Your task to perform on an android device: See recent photos Image 0: 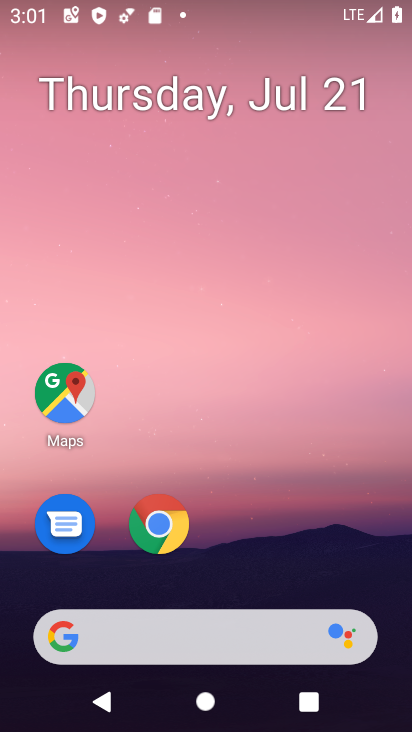
Step 0: drag from (250, 564) to (253, 57)
Your task to perform on an android device: See recent photos Image 1: 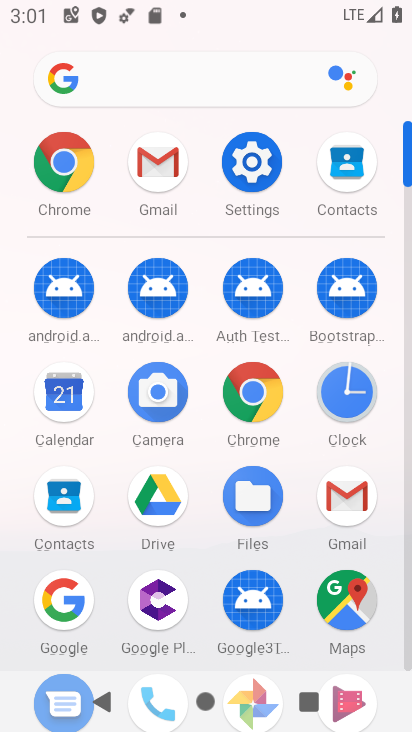
Step 1: drag from (195, 478) to (214, 189)
Your task to perform on an android device: See recent photos Image 2: 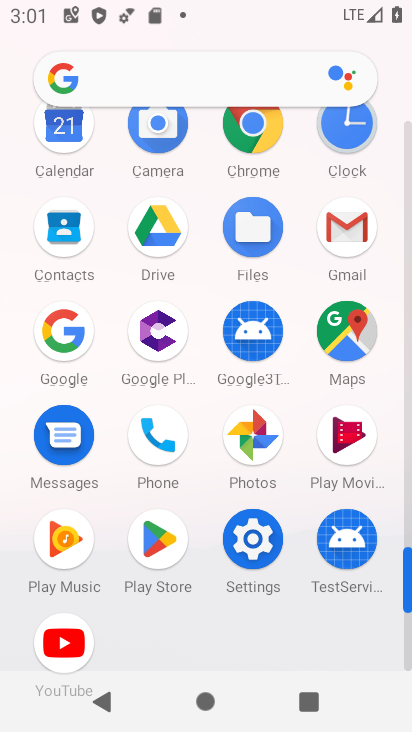
Step 2: click (256, 438)
Your task to perform on an android device: See recent photos Image 3: 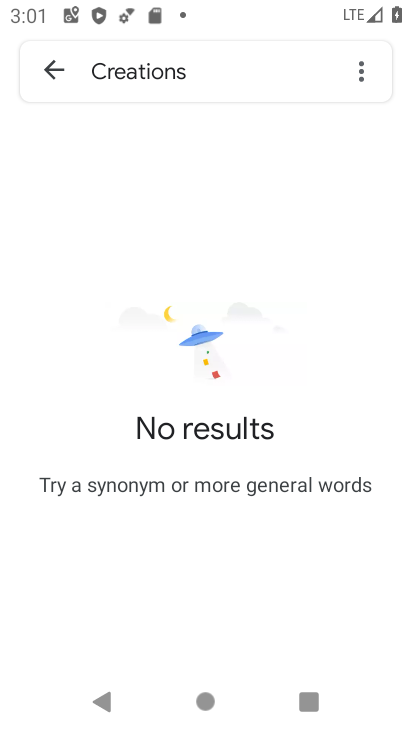
Step 3: click (56, 66)
Your task to perform on an android device: See recent photos Image 4: 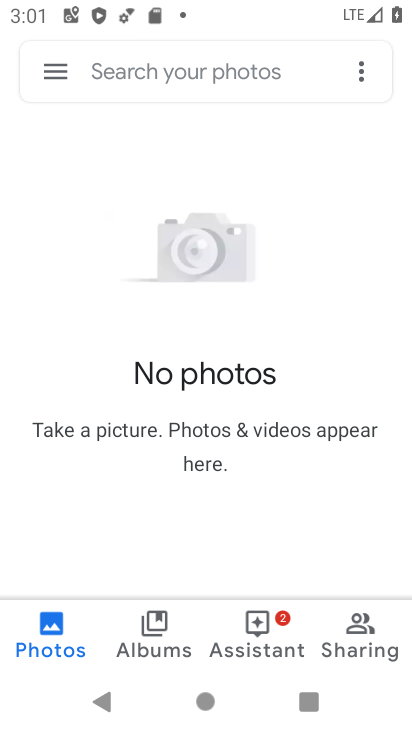
Step 4: task complete